Your task to perform on an android device: Open the calendar app, open the side menu, and click the "Day" option Image 0: 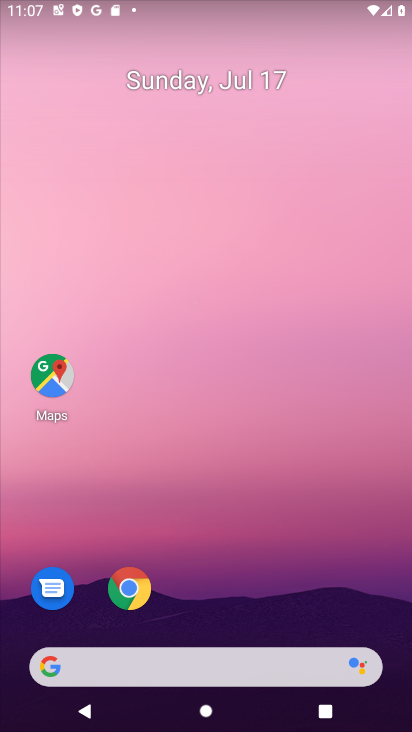
Step 0: press home button
Your task to perform on an android device: Open the calendar app, open the side menu, and click the "Day" option Image 1: 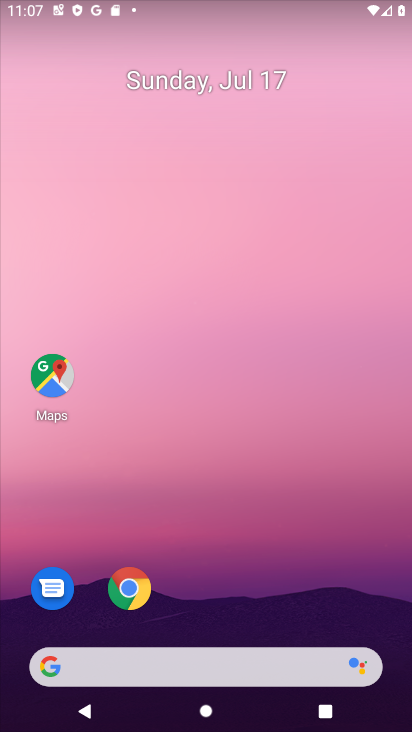
Step 1: drag from (201, 626) to (196, 48)
Your task to perform on an android device: Open the calendar app, open the side menu, and click the "Day" option Image 2: 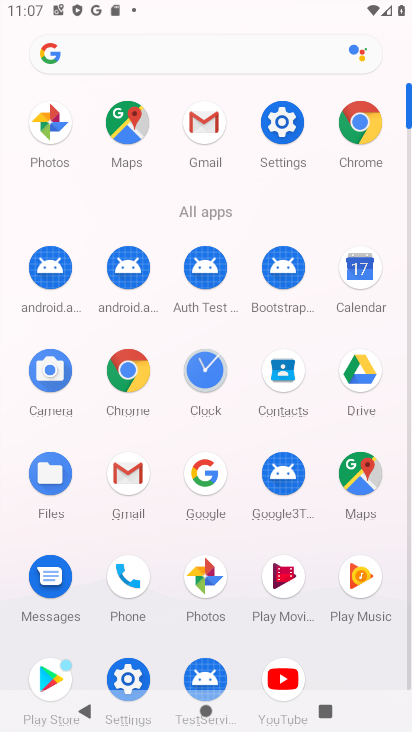
Step 2: click (358, 263)
Your task to perform on an android device: Open the calendar app, open the side menu, and click the "Day" option Image 3: 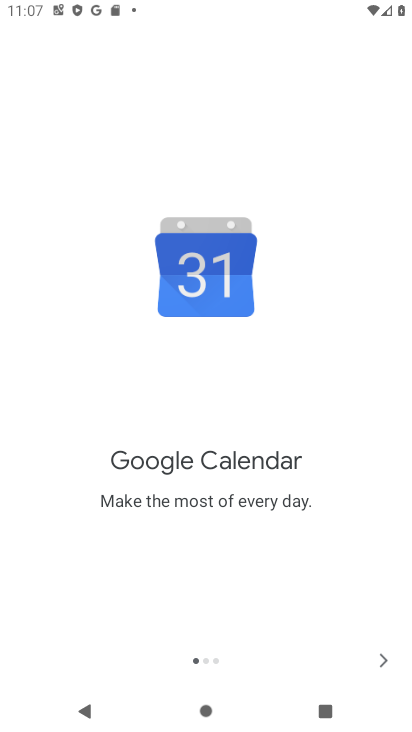
Step 3: click (378, 655)
Your task to perform on an android device: Open the calendar app, open the side menu, and click the "Day" option Image 4: 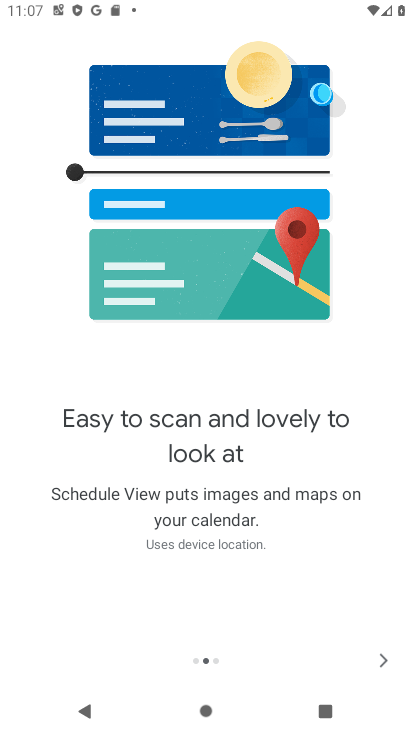
Step 4: click (379, 655)
Your task to perform on an android device: Open the calendar app, open the side menu, and click the "Day" option Image 5: 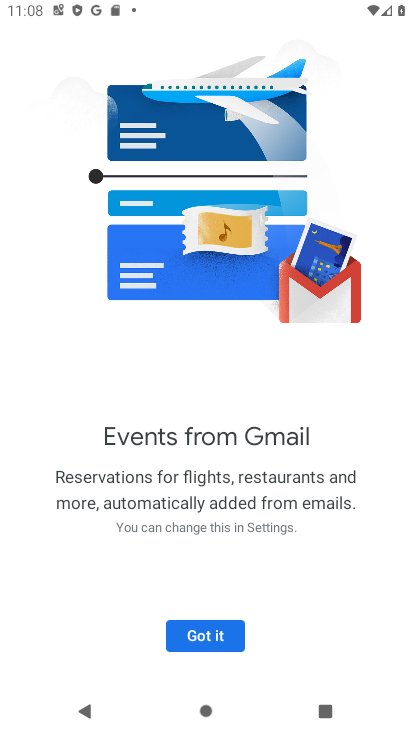
Step 5: click (208, 631)
Your task to perform on an android device: Open the calendar app, open the side menu, and click the "Day" option Image 6: 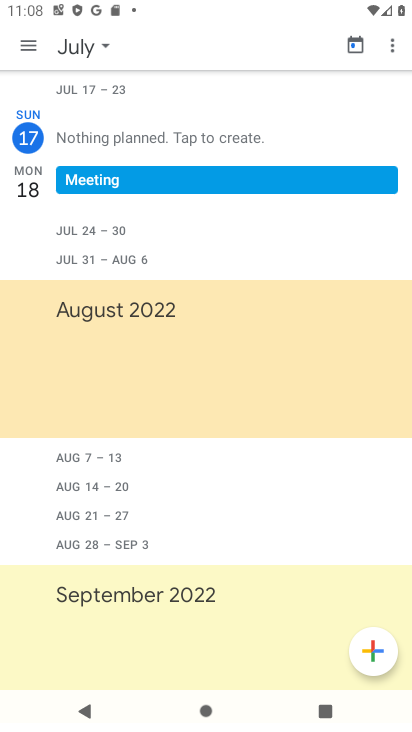
Step 6: click (29, 38)
Your task to perform on an android device: Open the calendar app, open the side menu, and click the "Day" option Image 7: 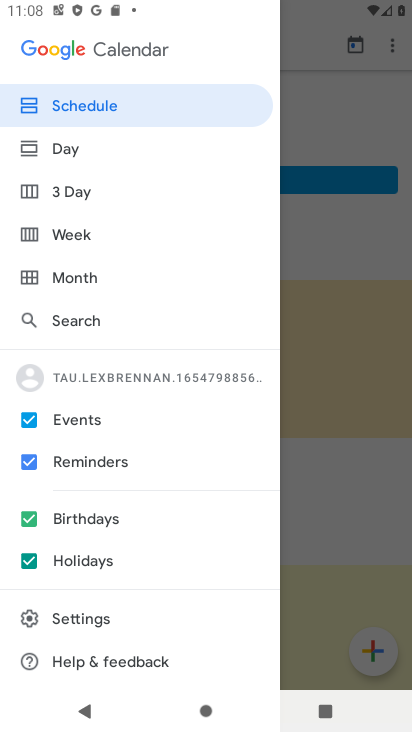
Step 7: click (75, 147)
Your task to perform on an android device: Open the calendar app, open the side menu, and click the "Day" option Image 8: 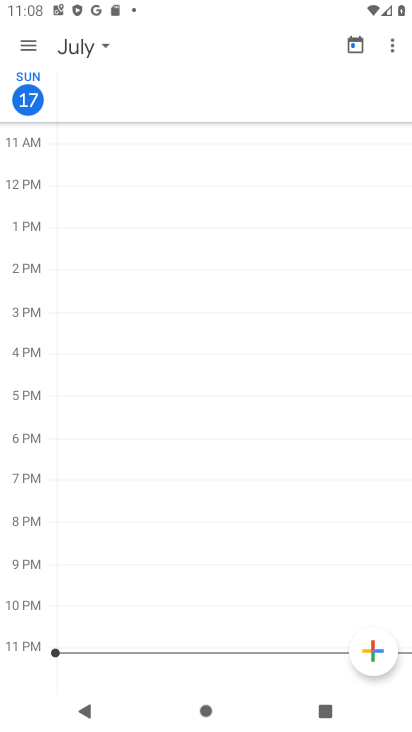
Step 8: task complete